Your task to perform on an android device: Open Google Maps Image 0: 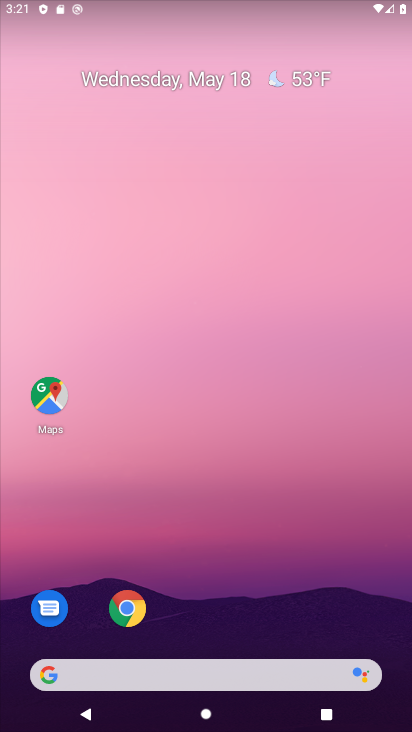
Step 0: drag from (336, 674) to (214, 45)
Your task to perform on an android device: Open Google Maps Image 1: 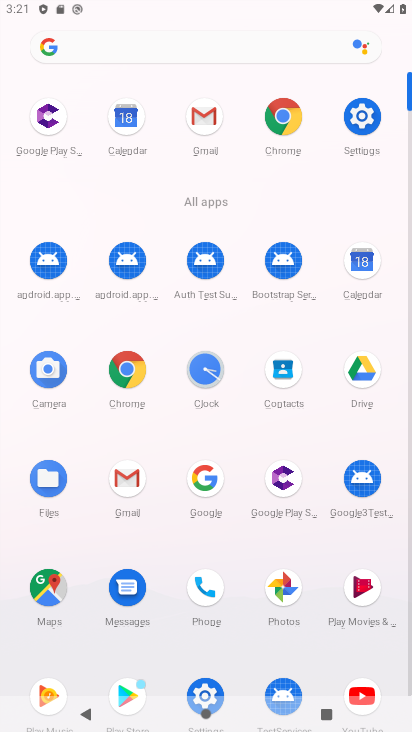
Step 1: click (51, 584)
Your task to perform on an android device: Open Google Maps Image 2: 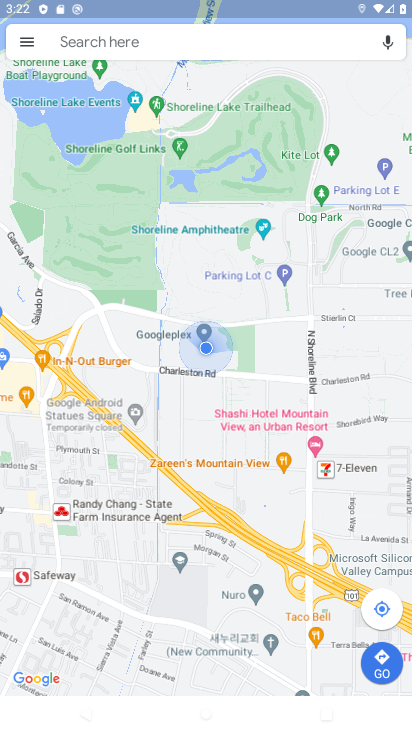
Step 2: task complete